Your task to perform on an android device: stop showing notifications on the lock screen Image 0: 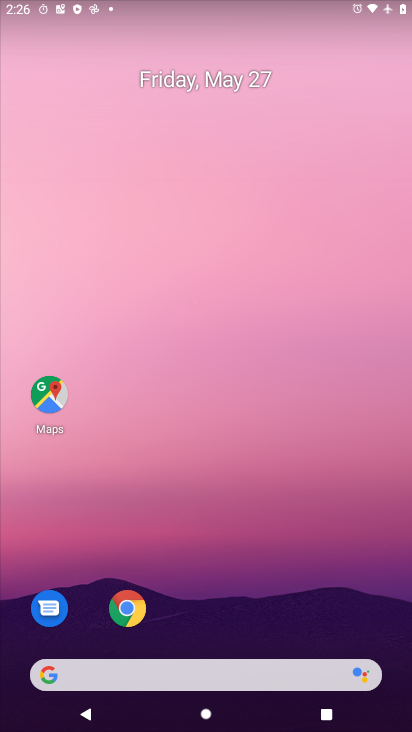
Step 0: press home button
Your task to perform on an android device: stop showing notifications on the lock screen Image 1: 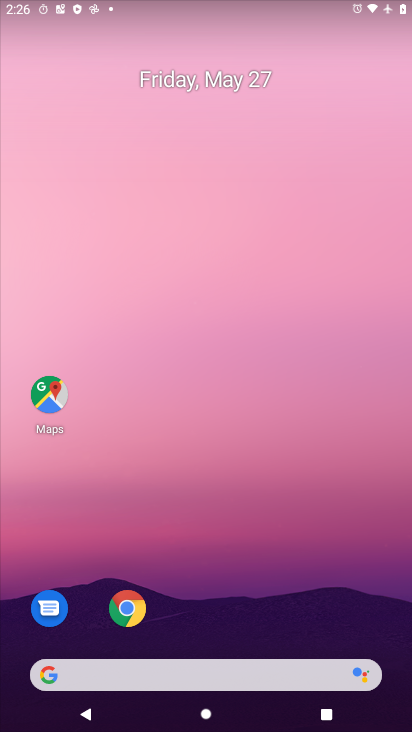
Step 1: drag from (188, 675) to (286, 217)
Your task to perform on an android device: stop showing notifications on the lock screen Image 2: 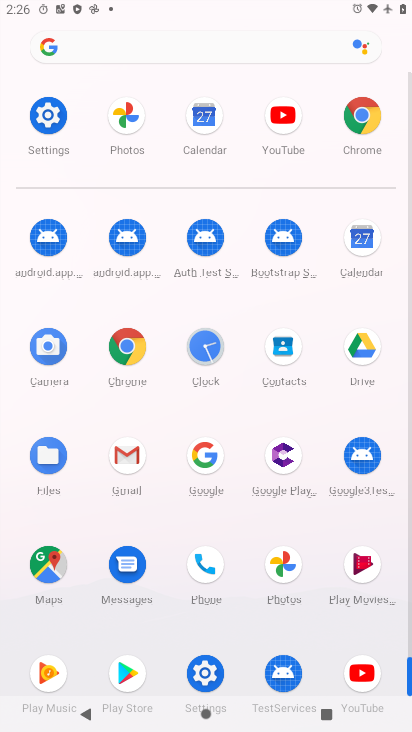
Step 2: click (49, 112)
Your task to perform on an android device: stop showing notifications on the lock screen Image 3: 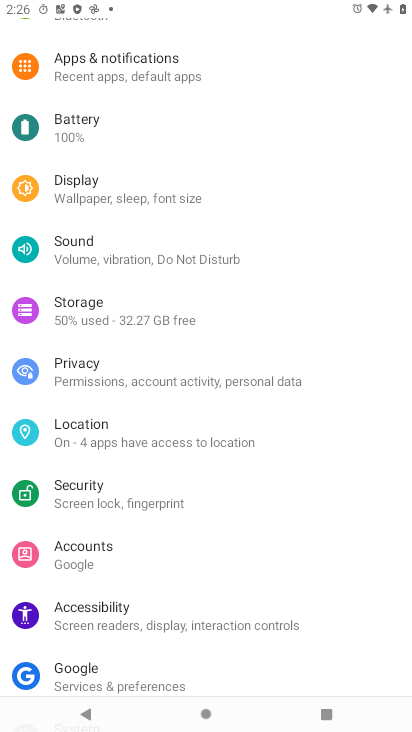
Step 3: click (135, 68)
Your task to perform on an android device: stop showing notifications on the lock screen Image 4: 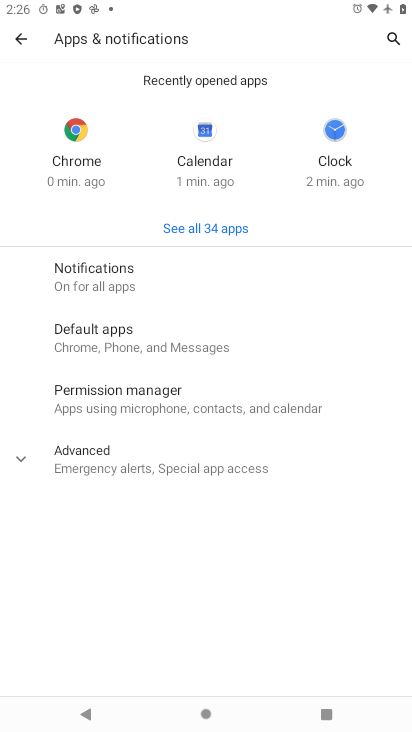
Step 4: click (124, 280)
Your task to perform on an android device: stop showing notifications on the lock screen Image 5: 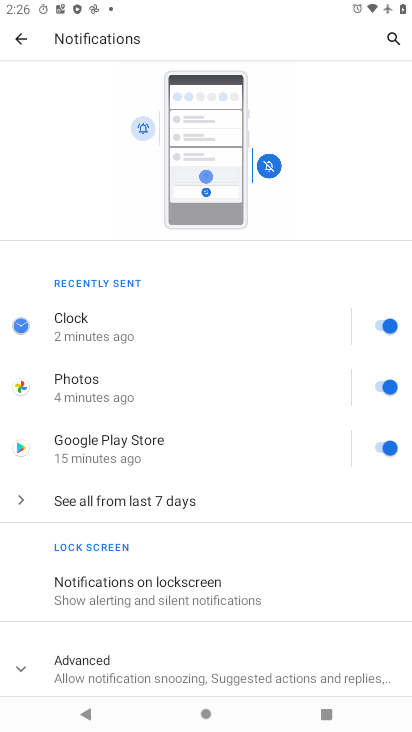
Step 5: click (190, 575)
Your task to perform on an android device: stop showing notifications on the lock screen Image 6: 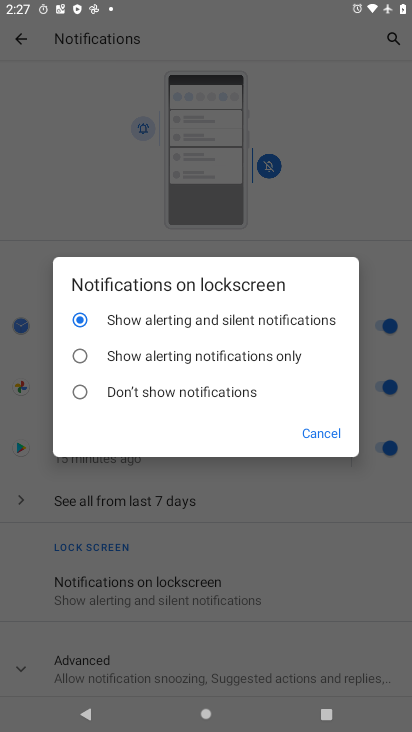
Step 6: click (81, 396)
Your task to perform on an android device: stop showing notifications on the lock screen Image 7: 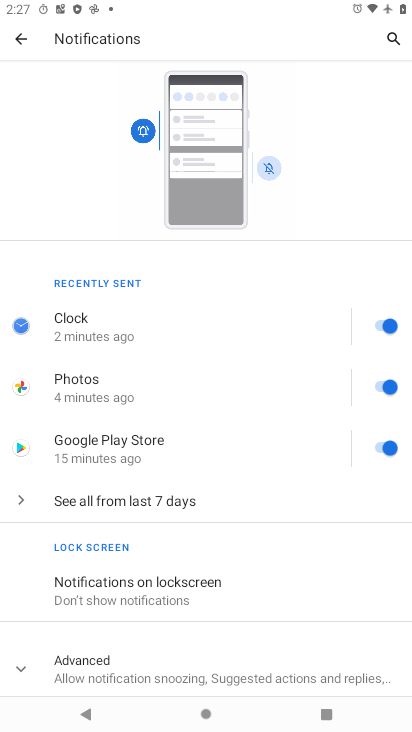
Step 7: task complete